Your task to perform on an android device: turn off smart reply in the gmail app Image 0: 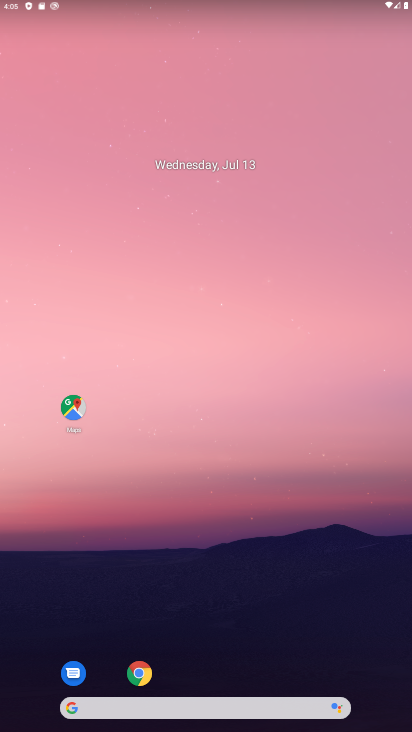
Step 0: drag from (203, 455) to (128, 190)
Your task to perform on an android device: turn off smart reply in the gmail app Image 1: 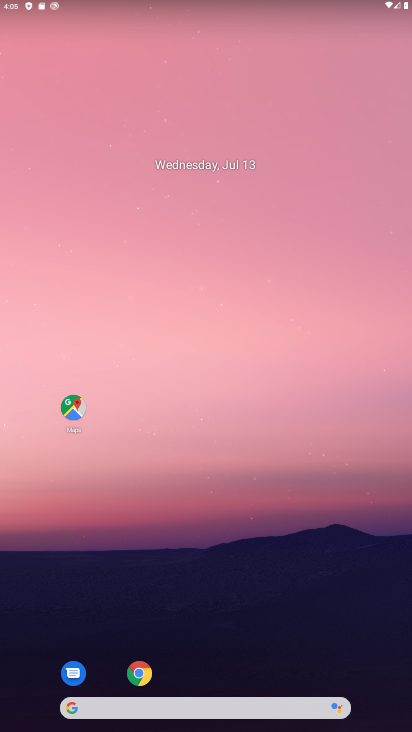
Step 1: drag from (241, 530) to (181, 206)
Your task to perform on an android device: turn off smart reply in the gmail app Image 2: 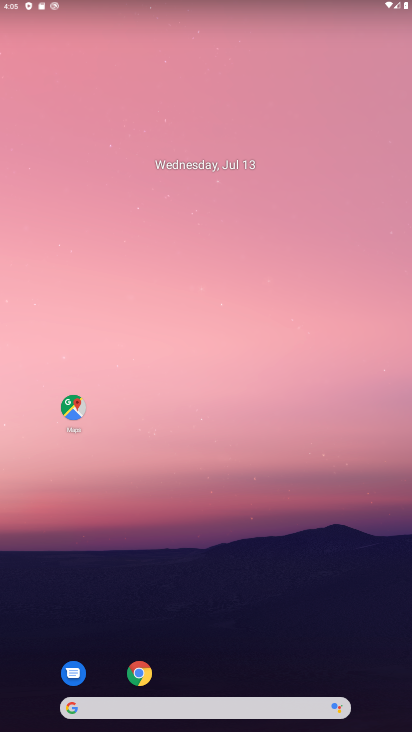
Step 2: drag from (218, 613) to (140, 203)
Your task to perform on an android device: turn off smart reply in the gmail app Image 3: 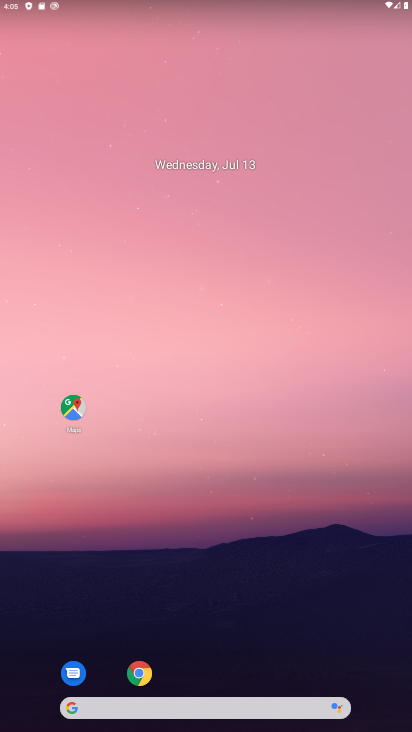
Step 3: drag from (171, 565) to (139, 95)
Your task to perform on an android device: turn off smart reply in the gmail app Image 4: 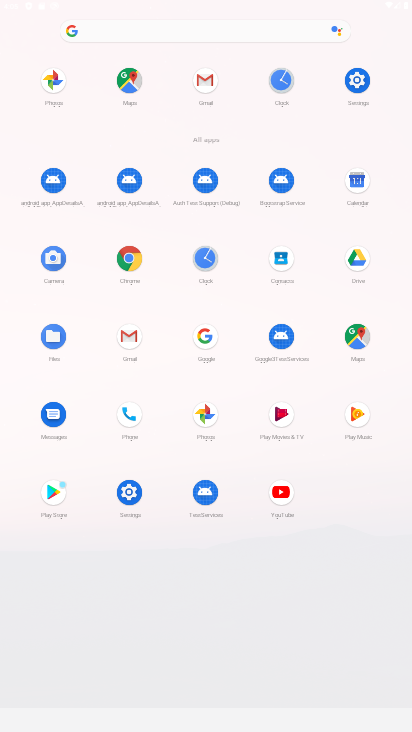
Step 4: drag from (242, 623) to (175, 96)
Your task to perform on an android device: turn off smart reply in the gmail app Image 5: 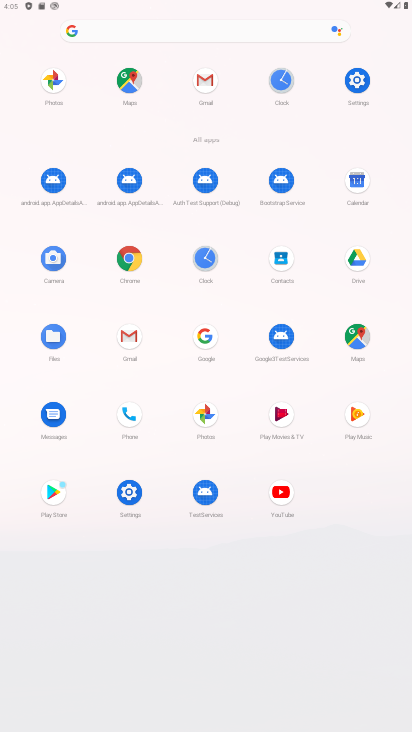
Step 5: click (131, 337)
Your task to perform on an android device: turn off smart reply in the gmail app Image 6: 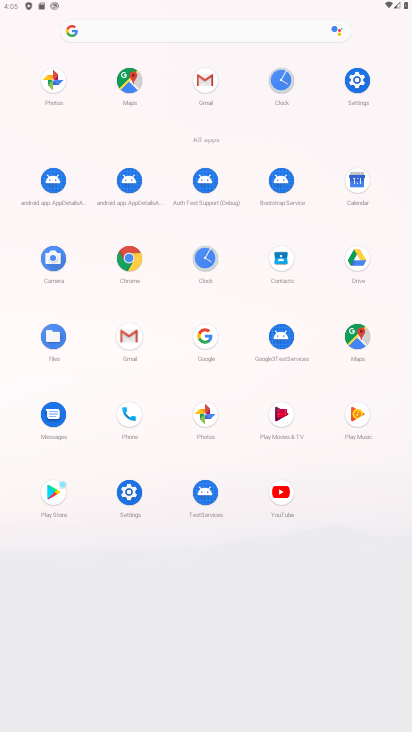
Step 6: click (131, 337)
Your task to perform on an android device: turn off smart reply in the gmail app Image 7: 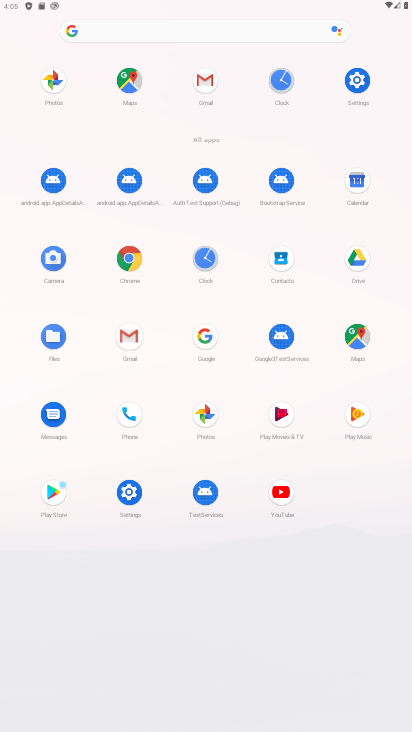
Step 7: click (131, 337)
Your task to perform on an android device: turn off smart reply in the gmail app Image 8: 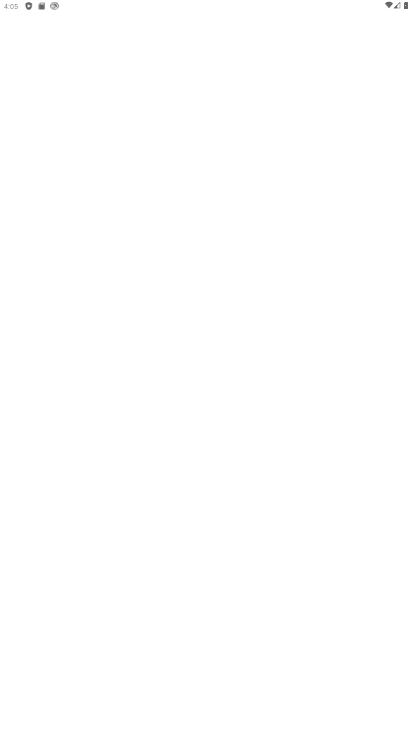
Step 8: click (131, 337)
Your task to perform on an android device: turn off smart reply in the gmail app Image 9: 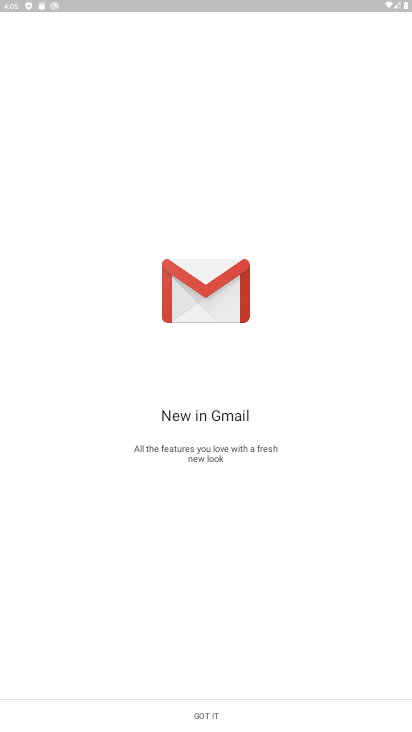
Step 9: click (208, 706)
Your task to perform on an android device: turn off smart reply in the gmail app Image 10: 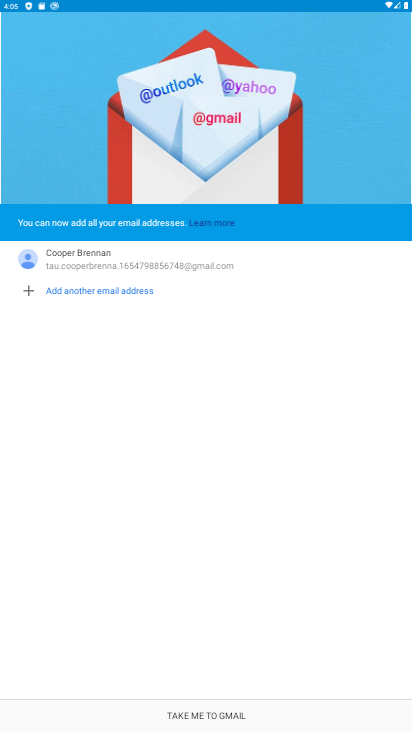
Step 10: click (194, 712)
Your task to perform on an android device: turn off smart reply in the gmail app Image 11: 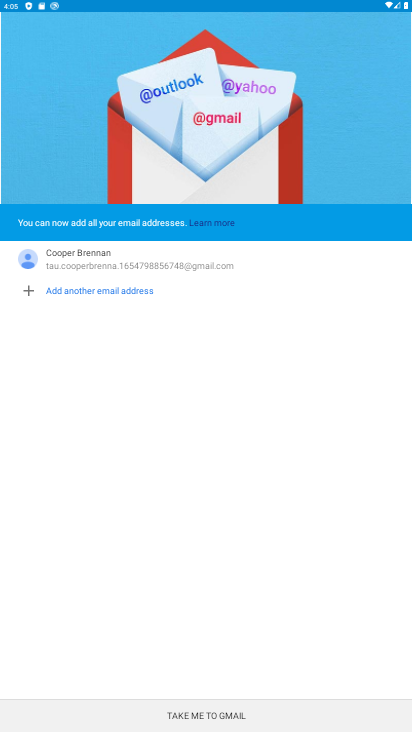
Step 11: click (194, 712)
Your task to perform on an android device: turn off smart reply in the gmail app Image 12: 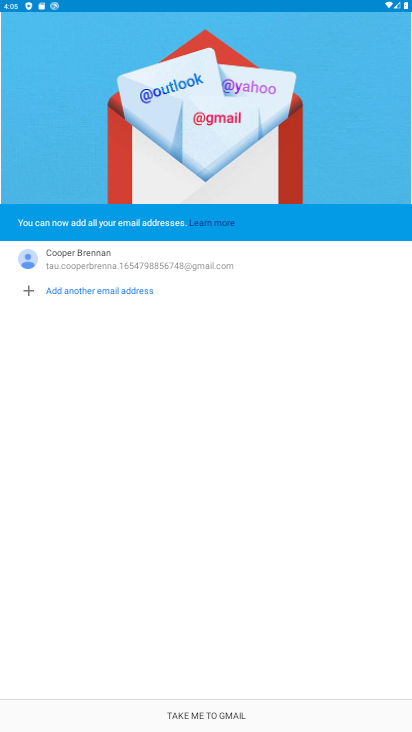
Step 12: click (194, 712)
Your task to perform on an android device: turn off smart reply in the gmail app Image 13: 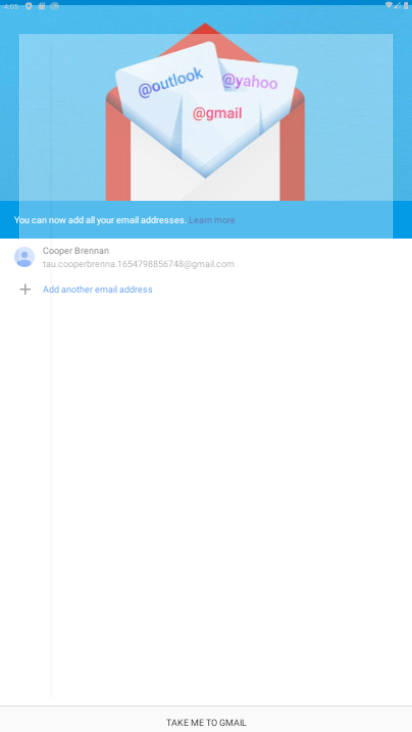
Step 13: click (194, 712)
Your task to perform on an android device: turn off smart reply in the gmail app Image 14: 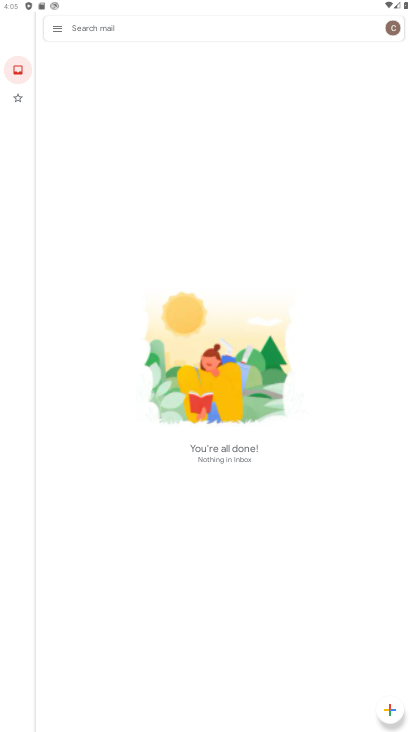
Step 14: click (62, 32)
Your task to perform on an android device: turn off smart reply in the gmail app Image 15: 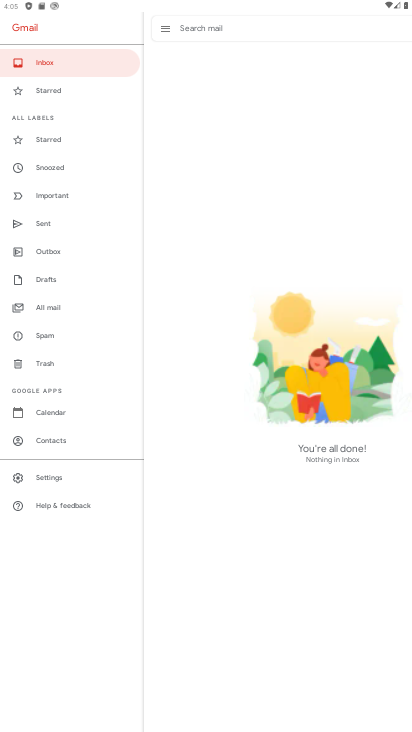
Step 15: click (43, 469)
Your task to perform on an android device: turn off smart reply in the gmail app Image 16: 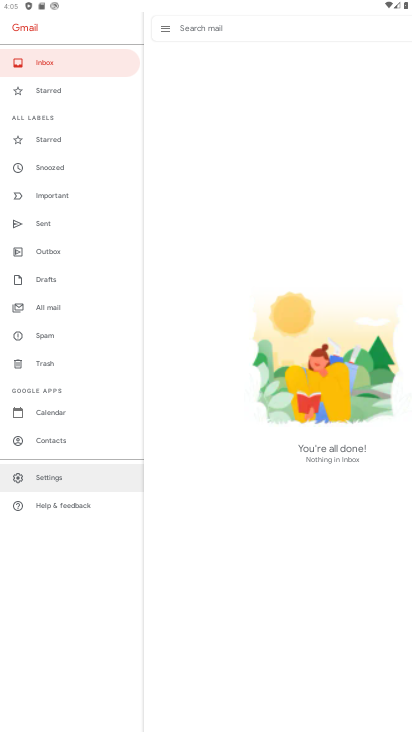
Step 16: click (46, 471)
Your task to perform on an android device: turn off smart reply in the gmail app Image 17: 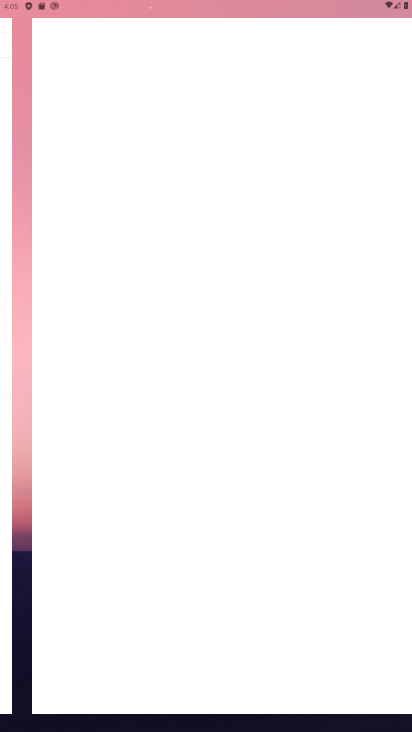
Step 17: click (47, 471)
Your task to perform on an android device: turn off smart reply in the gmail app Image 18: 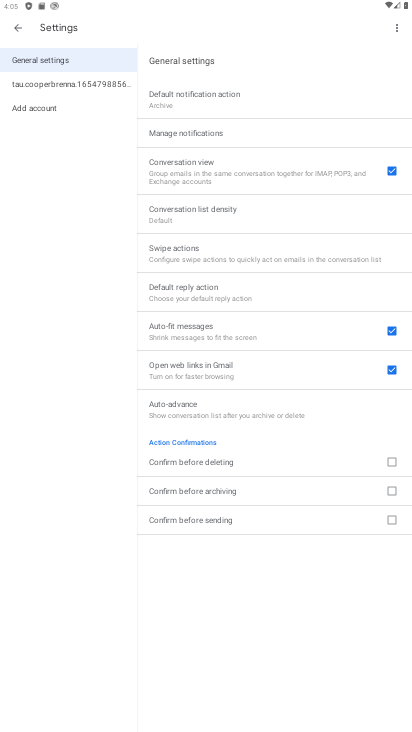
Step 18: click (52, 84)
Your task to perform on an android device: turn off smart reply in the gmail app Image 19: 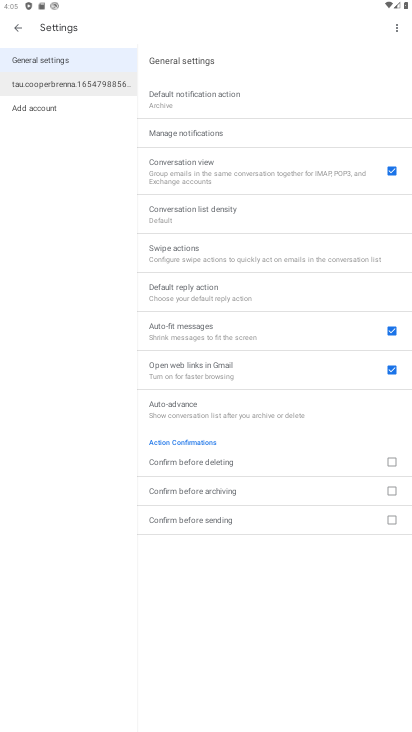
Step 19: click (64, 90)
Your task to perform on an android device: turn off smart reply in the gmail app Image 20: 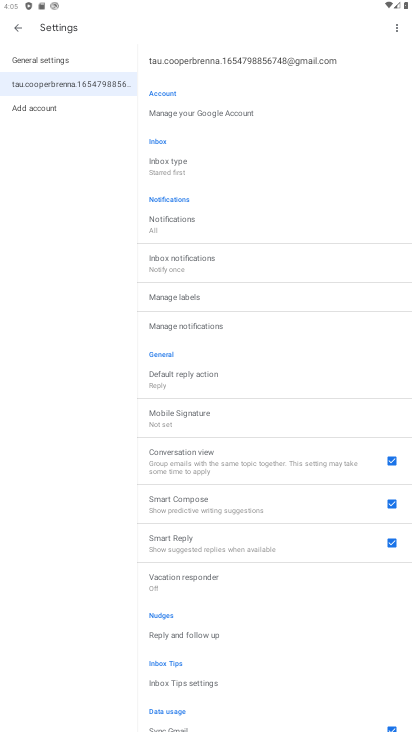
Step 20: click (189, 545)
Your task to perform on an android device: turn off smart reply in the gmail app Image 21: 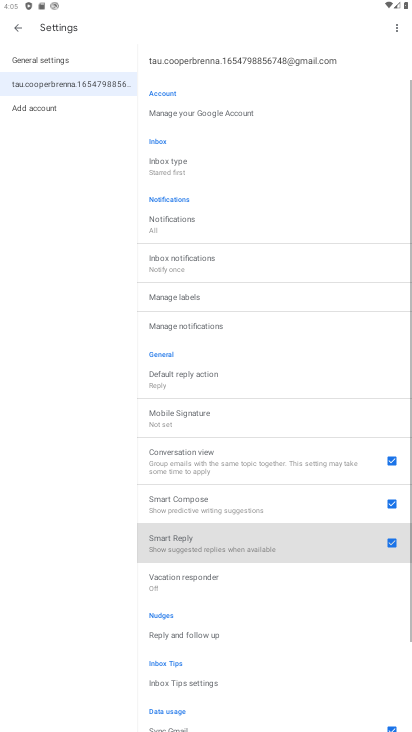
Step 21: click (189, 545)
Your task to perform on an android device: turn off smart reply in the gmail app Image 22: 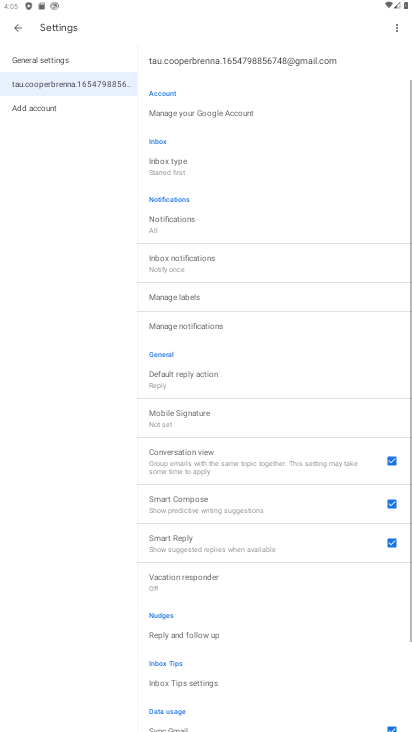
Step 22: click (388, 549)
Your task to perform on an android device: turn off smart reply in the gmail app Image 23: 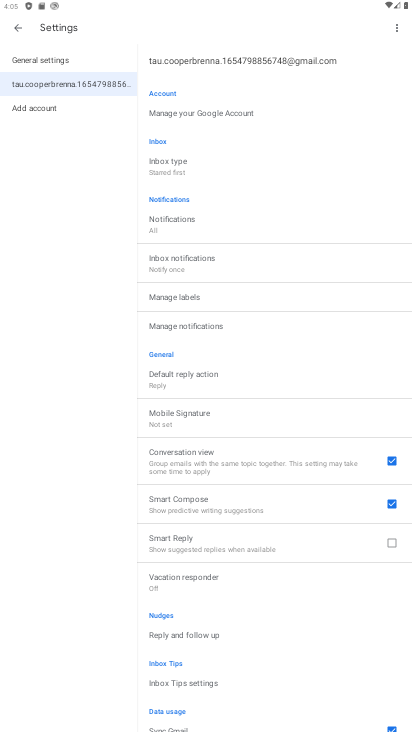
Step 23: task complete